Your task to perform on an android device: Go to accessibility settings Image 0: 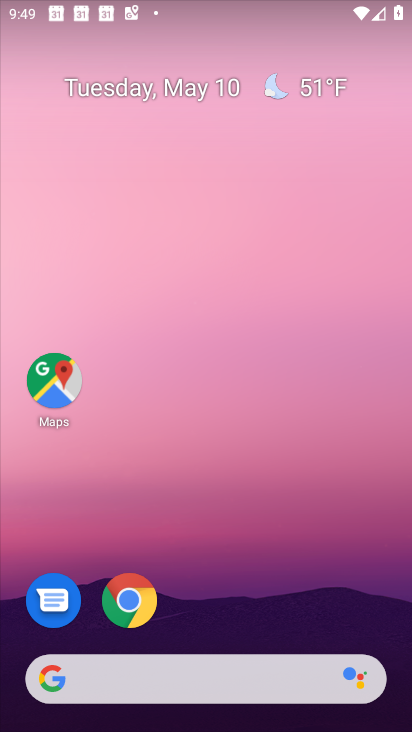
Step 0: drag from (272, 576) to (199, 29)
Your task to perform on an android device: Go to accessibility settings Image 1: 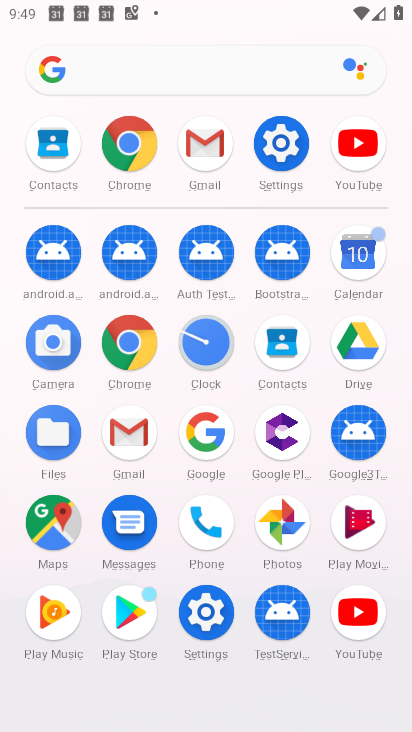
Step 1: click (293, 141)
Your task to perform on an android device: Go to accessibility settings Image 2: 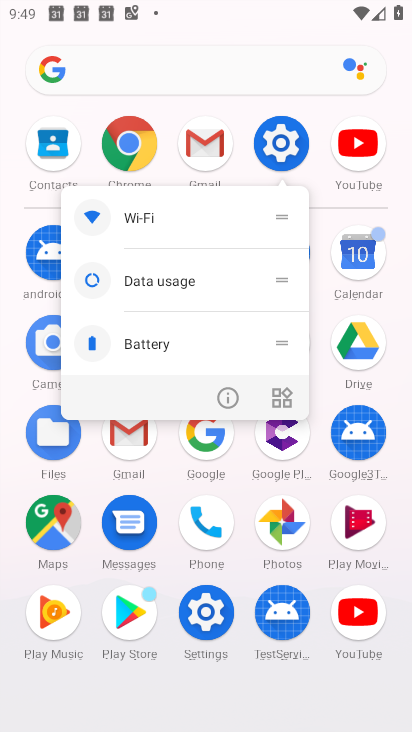
Step 2: click (293, 148)
Your task to perform on an android device: Go to accessibility settings Image 3: 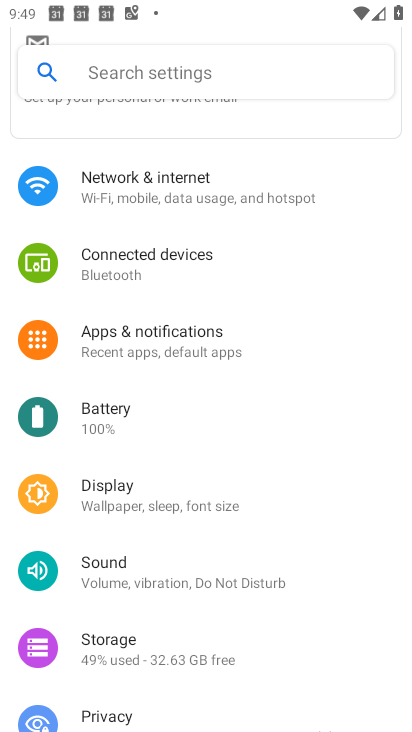
Step 3: drag from (223, 629) to (262, 226)
Your task to perform on an android device: Go to accessibility settings Image 4: 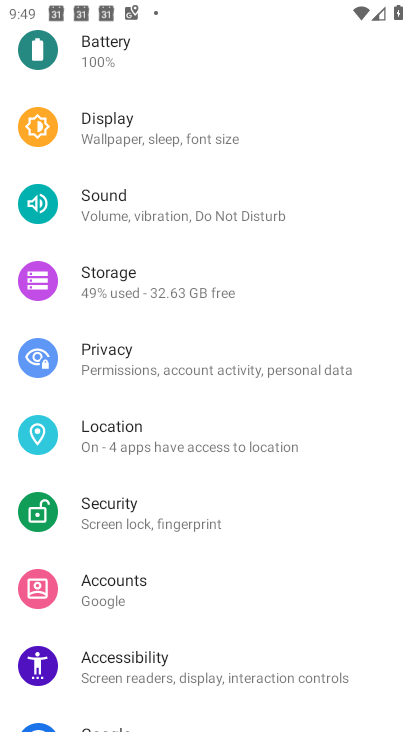
Step 4: click (189, 681)
Your task to perform on an android device: Go to accessibility settings Image 5: 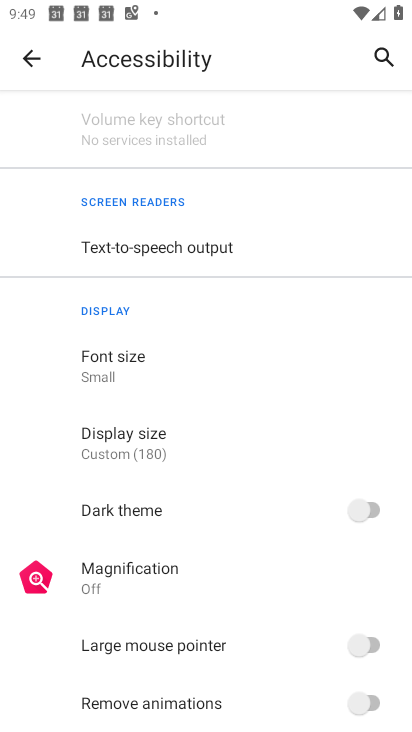
Step 5: task complete